Your task to perform on an android device: open chrome and create a bookmark for the current page Image 0: 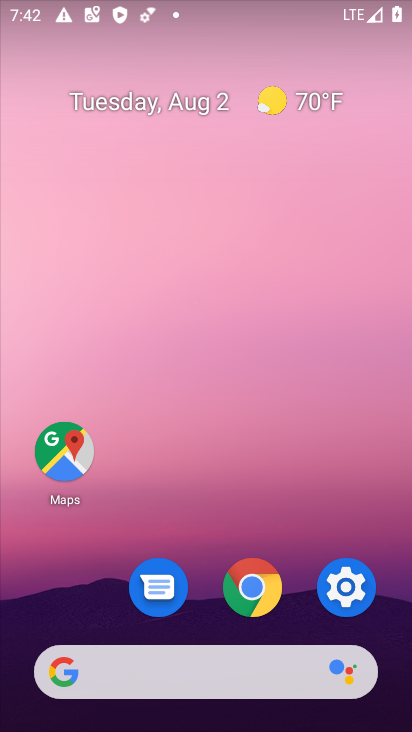
Step 0: press home button
Your task to perform on an android device: open chrome and create a bookmark for the current page Image 1: 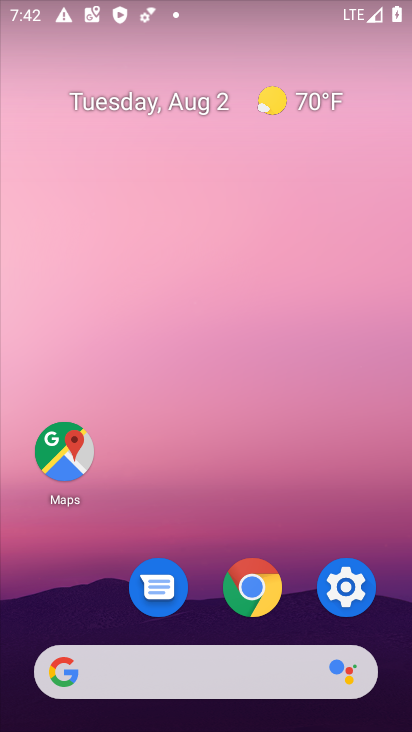
Step 1: click (263, 578)
Your task to perform on an android device: open chrome and create a bookmark for the current page Image 2: 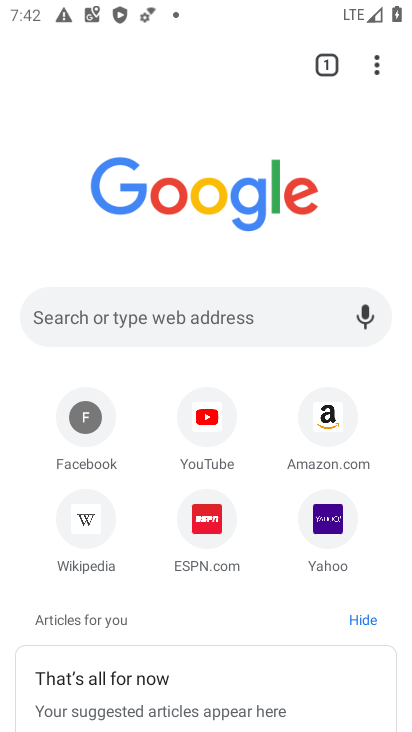
Step 2: click (378, 77)
Your task to perform on an android device: open chrome and create a bookmark for the current page Image 3: 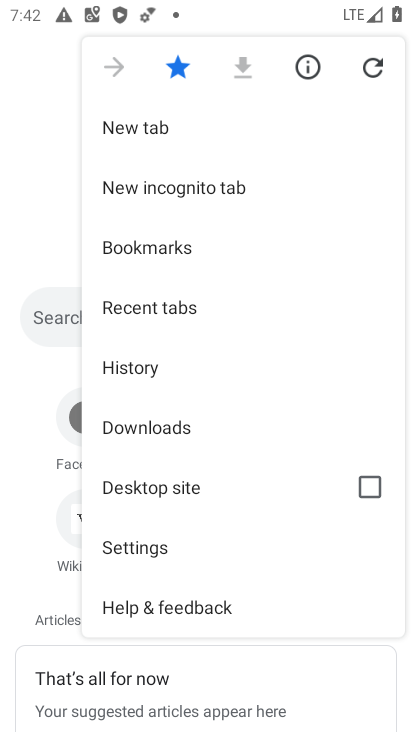
Step 3: click (164, 258)
Your task to perform on an android device: open chrome and create a bookmark for the current page Image 4: 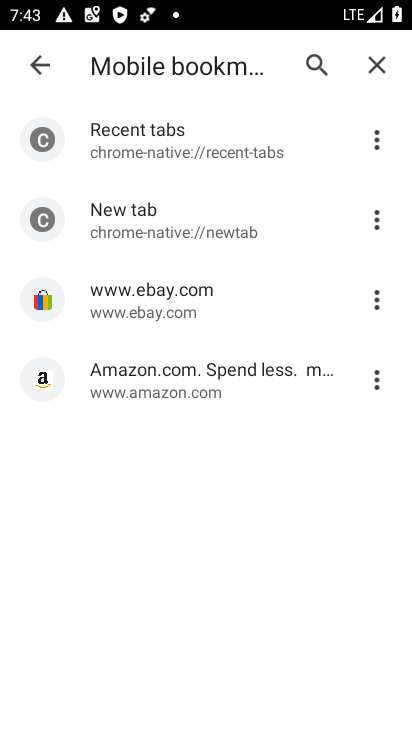
Step 4: task complete